Your task to perform on an android device: Go to accessibility settings Image 0: 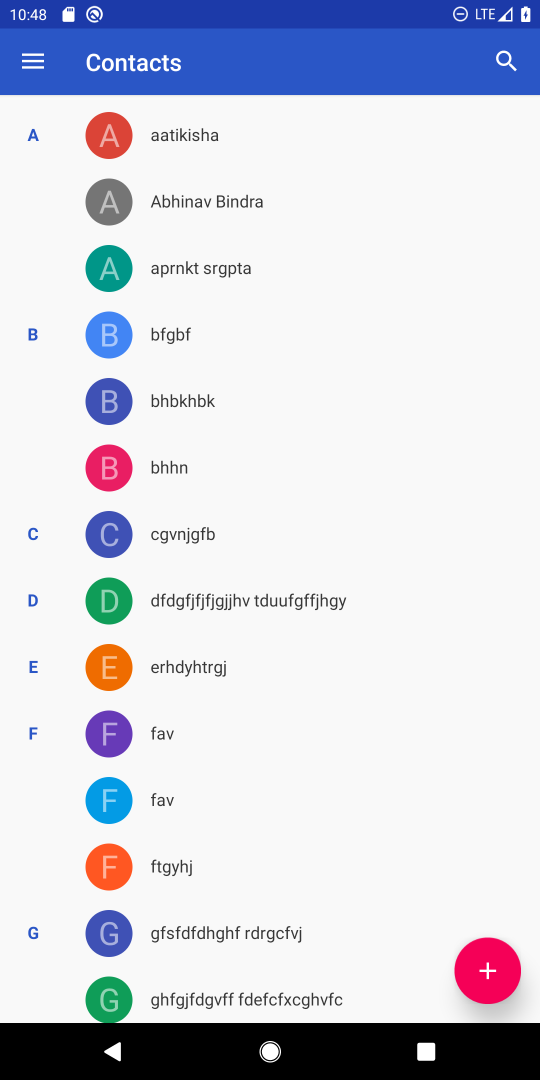
Step 0: press home button
Your task to perform on an android device: Go to accessibility settings Image 1: 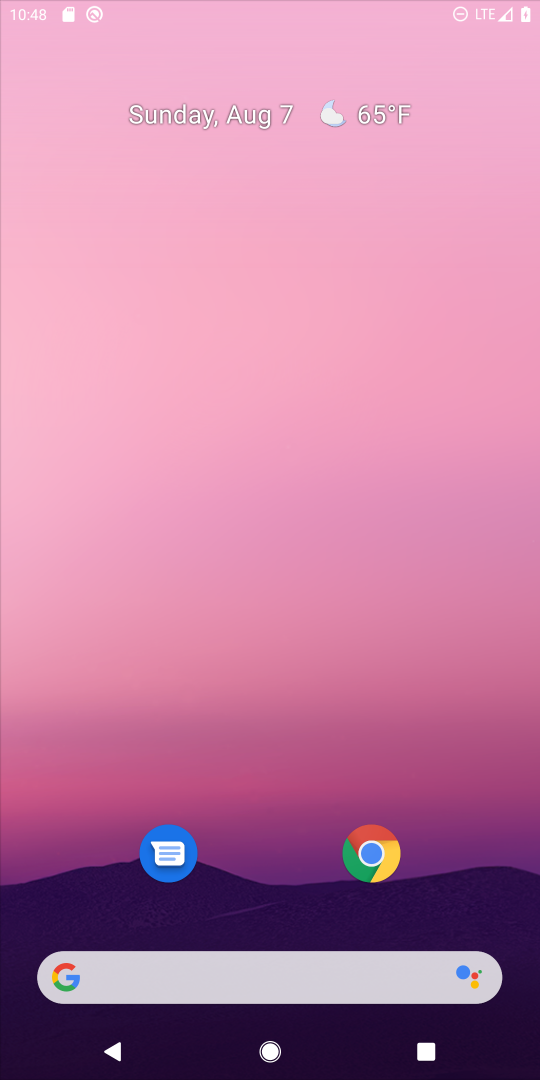
Step 1: drag from (186, 889) to (203, 201)
Your task to perform on an android device: Go to accessibility settings Image 2: 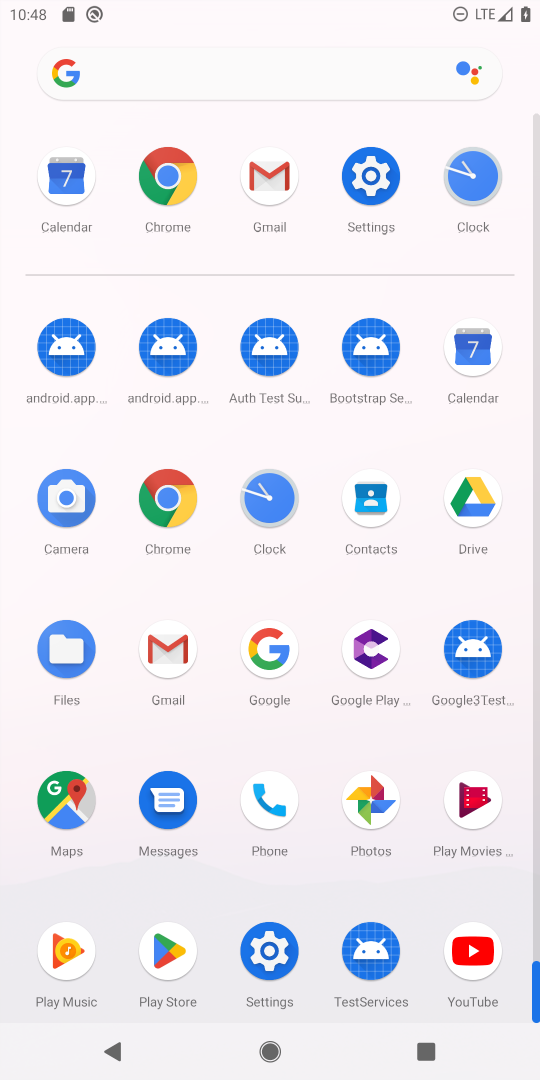
Step 2: click (253, 938)
Your task to perform on an android device: Go to accessibility settings Image 3: 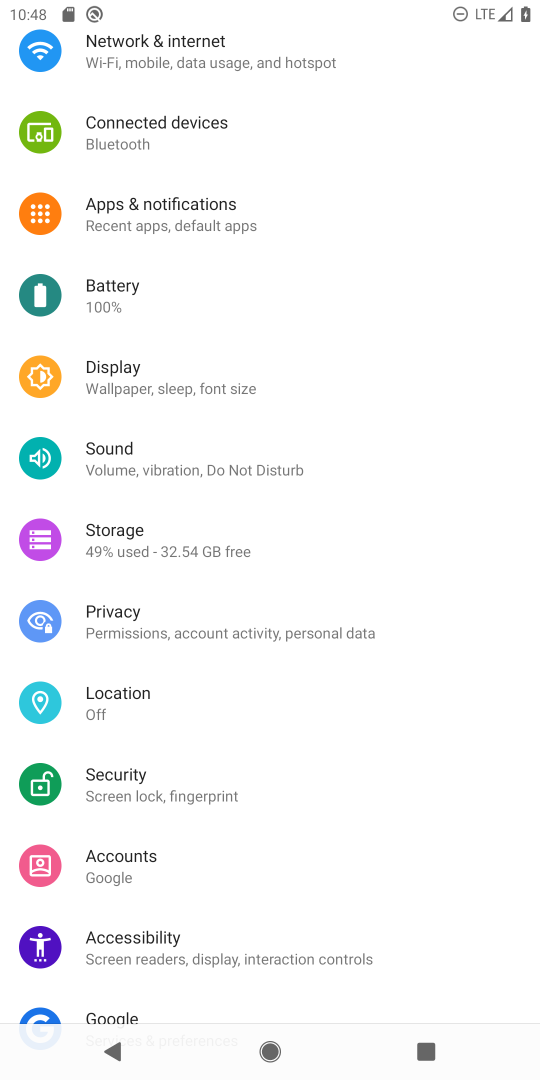
Step 3: click (153, 938)
Your task to perform on an android device: Go to accessibility settings Image 4: 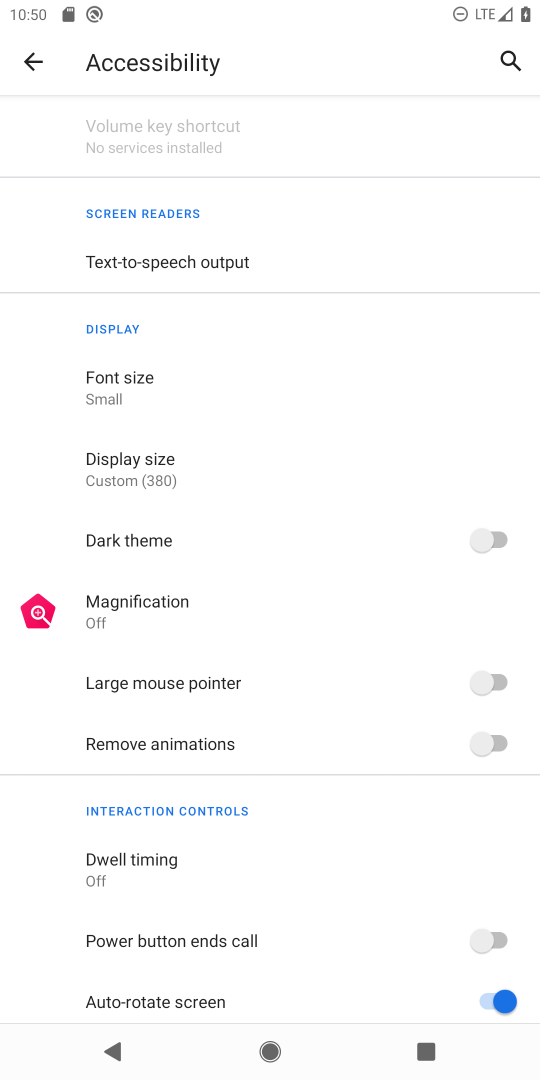
Step 4: task complete